Your task to perform on an android device: Open display settings Image 0: 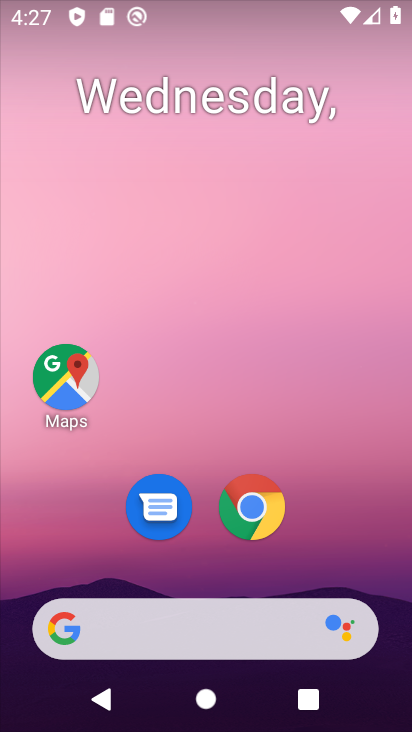
Step 0: drag from (329, 473) to (243, 2)
Your task to perform on an android device: Open display settings Image 1: 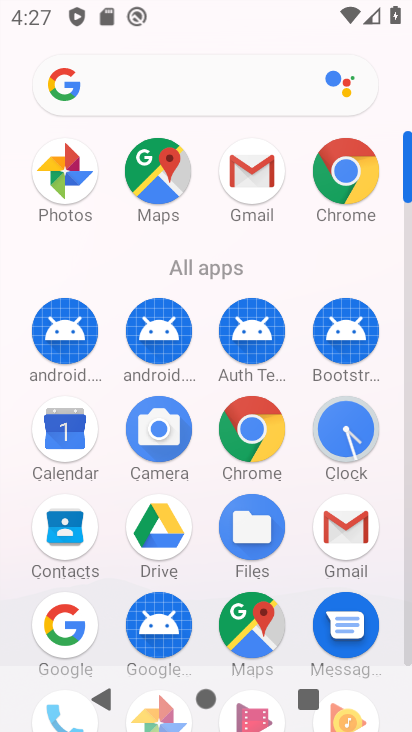
Step 1: drag from (384, 571) to (318, 204)
Your task to perform on an android device: Open display settings Image 2: 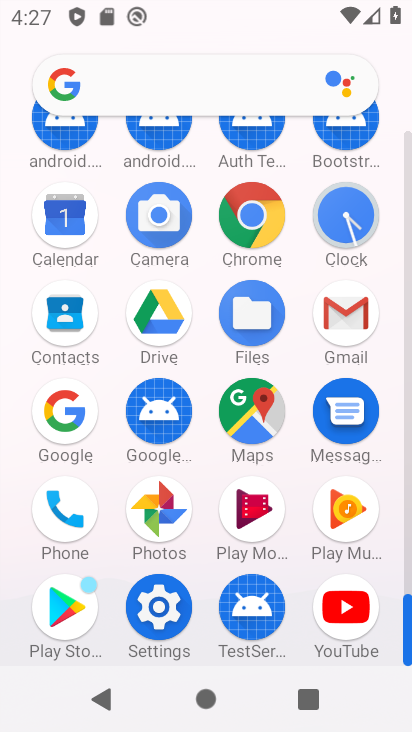
Step 2: click (170, 590)
Your task to perform on an android device: Open display settings Image 3: 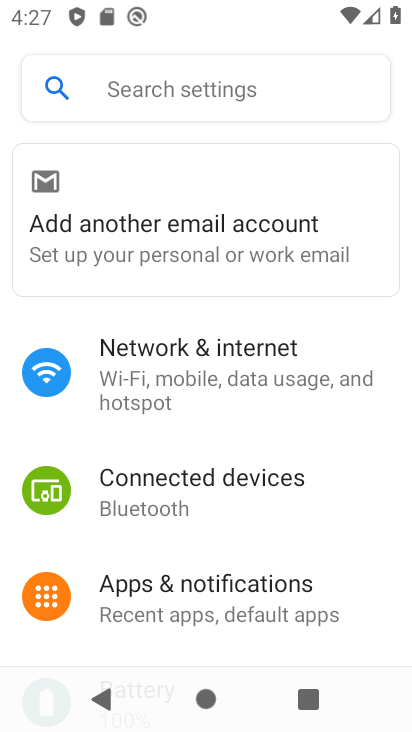
Step 3: drag from (256, 605) to (251, 212)
Your task to perform on an android device: Open display settings Image 4: 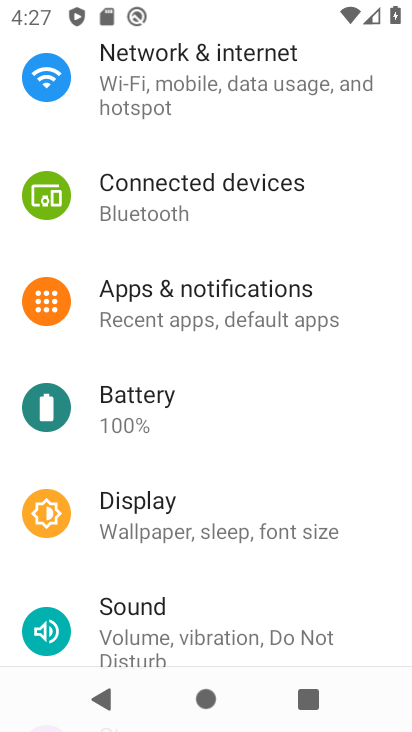
Step 4: click (207, 521)
Your task to perform on an android device: Open display settings Image 5: 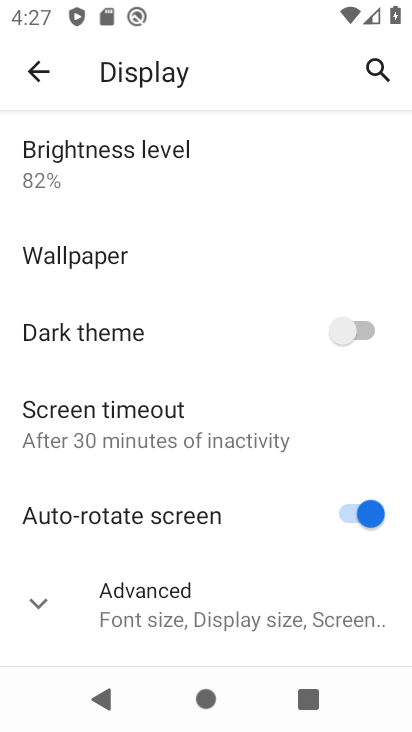
Step 5: task complete